Your task to perform on an android device: turn off priority inbox in the gmail app Image 0: 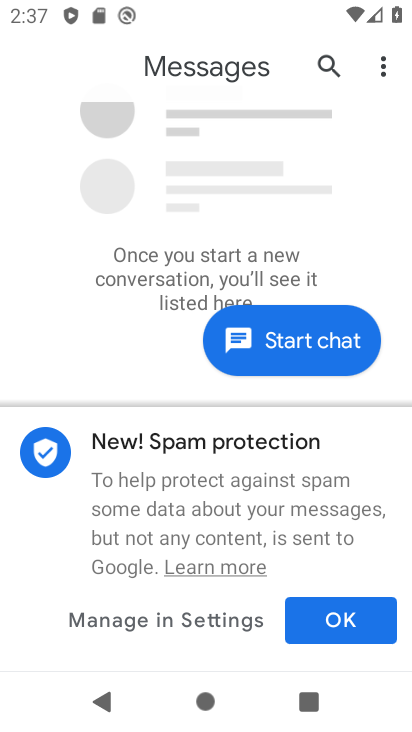
Step 0: press home button
Your task to perform on an android device: turn off priority inbox in the gmail app Image 1: 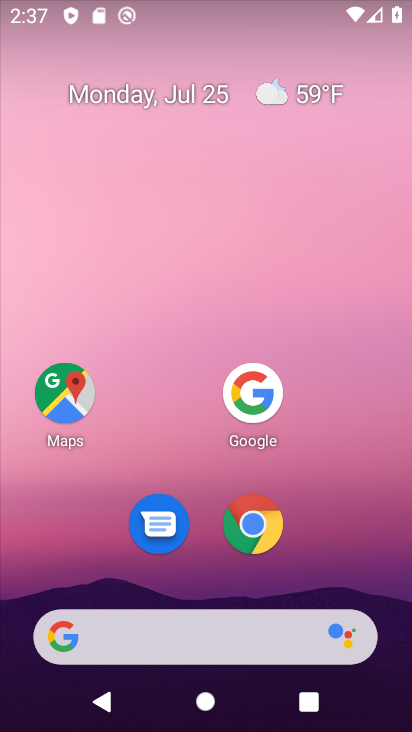
Step 1: drag from (214, 610) to (284, 50)
Your task to perform on an android device: turn off priority inbox in the gmail app Image 2: 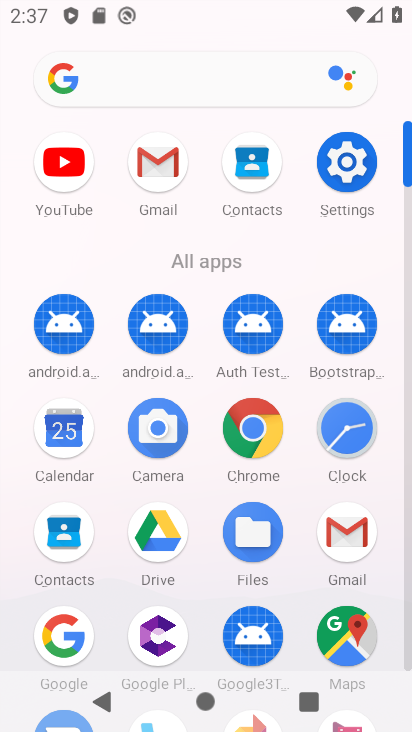
Step 2: click (165, 168)
Your task to perform on an android device: turn off priority inbox in the gmail app Image 3: 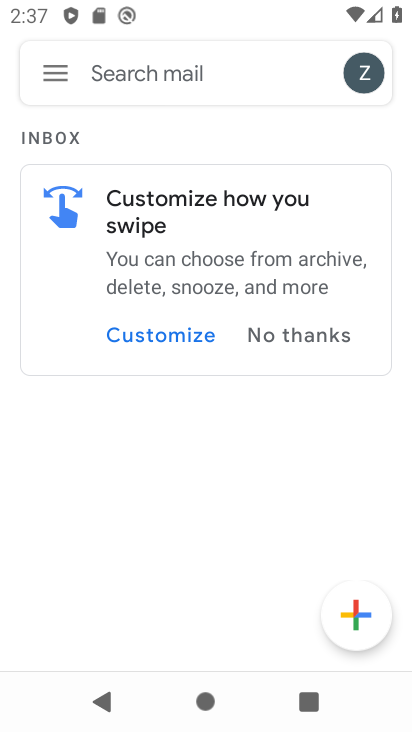
Step 3: click (51, 73)
Your task to perform on an android device: turn off priority inbox in the gmail app Image 4: 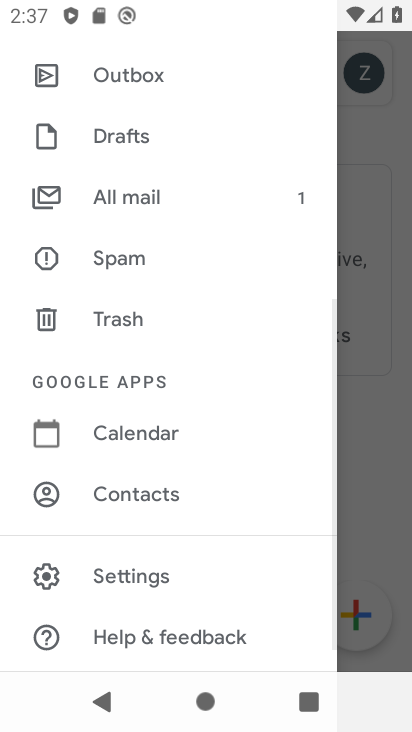
Step 4: click (141, 570)
Your task to perform on an android device: turn off priority inbox in the gmail app Image 5: 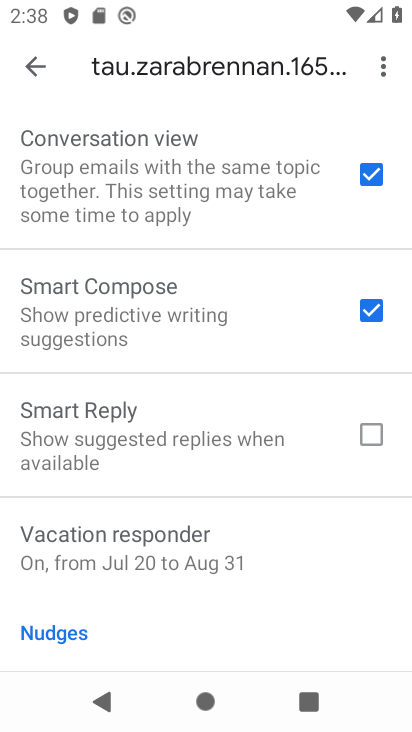
Step 5: drag from (238, 103) to (267, 634)
Your task to perform on an android device: turn off priority inbox in the gmail app Image 6: 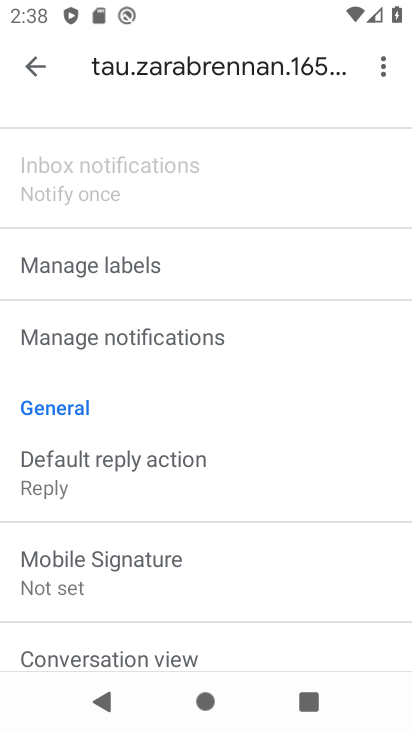
Step 6: drag from (265, 193) to (258, 663)
Your task to perform on an android device: turn off priority inbox in the gmail app Image 7: 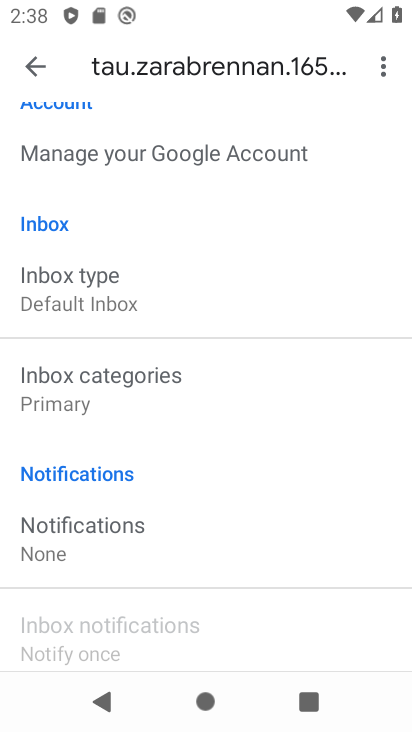
Step 7: click (98, 302)
Your task to perform on an android device: turn off priority inbox in the gmail app Image 8: 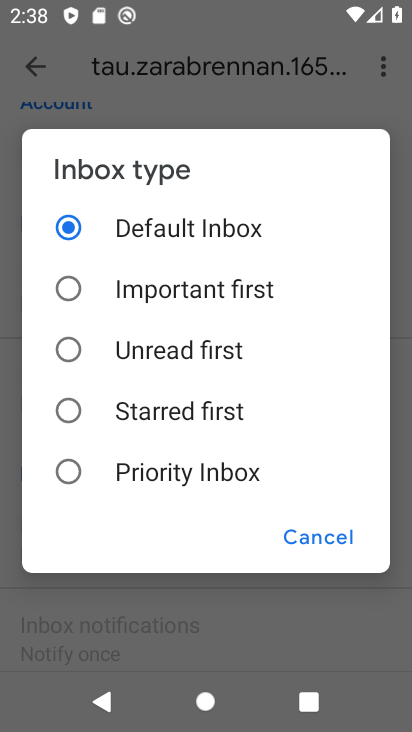
Step 8: task complete